Your task to perform on an android device: turn off improve location accuracy Image 0: 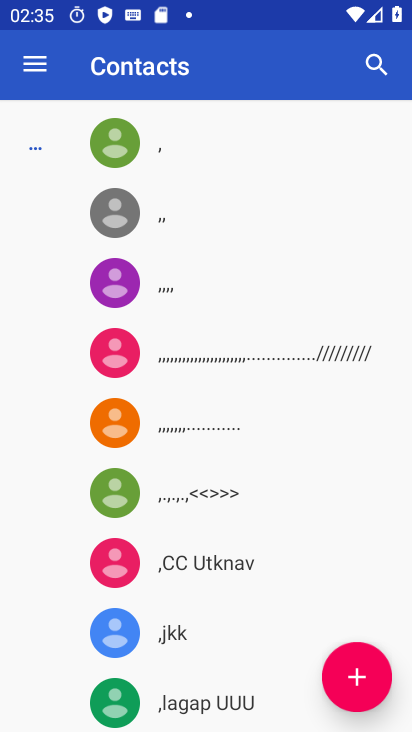
Step 0: press home button
Your task to perform on an android device: turn off improve location accuracy Image 1: 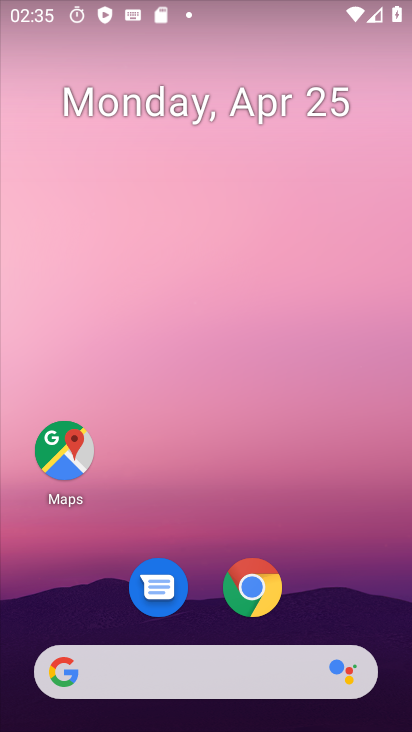
Step 1: drag from (335, 568) to (296, 126)
Your task to perform on an android device: turn off improve location accuracy Image 2: 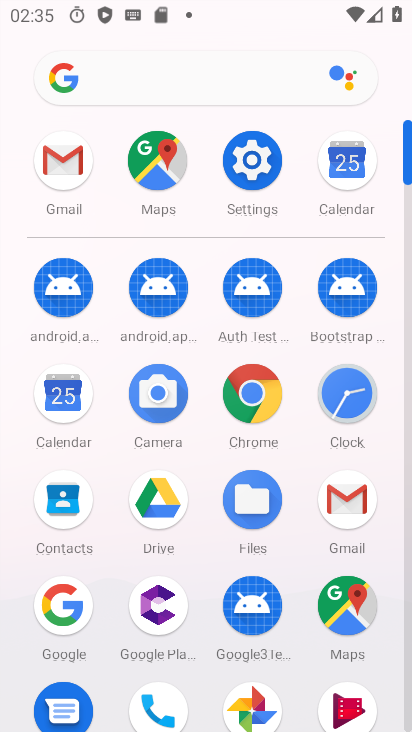
Step 2: click (260, 161)
Your task to perform on an android device: turn off improve location accuracy Image 3: 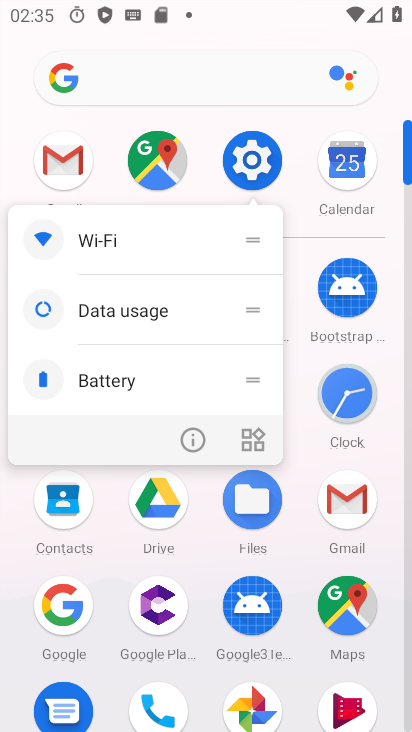
Step 3: click (237, 165)
Your task to perform on an android device: turn off improve location accuracy Image 4: 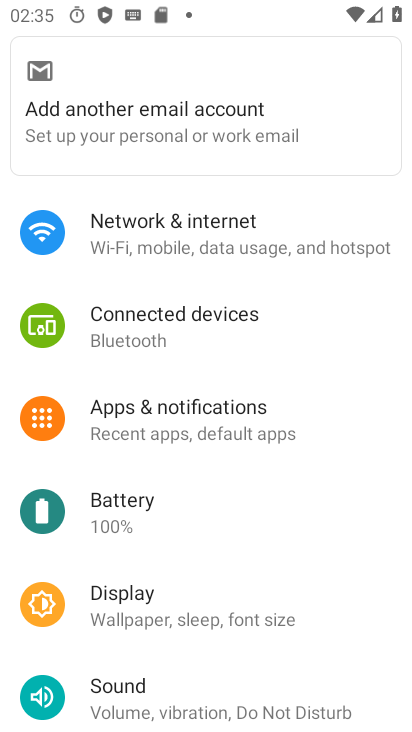
Step 4: drag from (205, 562) to (303, 156)
Your task to perform on an android device: turn off improve location accuracy Image 5: 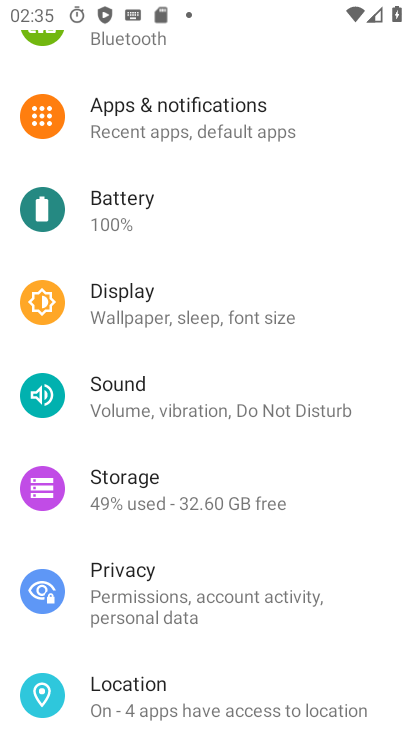
Step 5: drag from (291, 429) to (325, 175)
Your task to perform on an android device: turn off improve location accuracy Image 6: 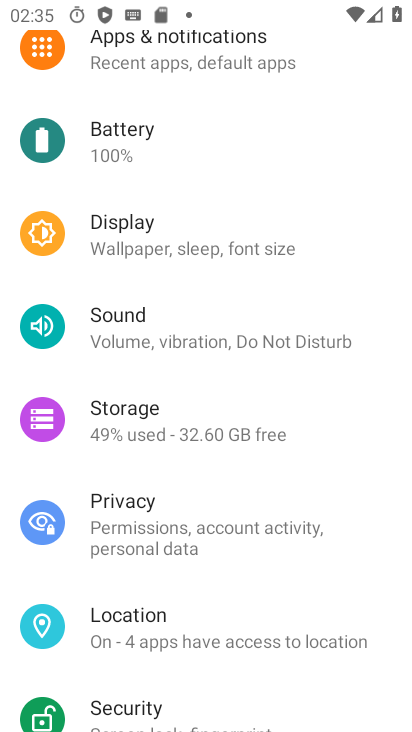
Step 6: drag from (207, 262) to (207, 524)
Your task to perform on an android device: turn off improve location accuracy Image 7: 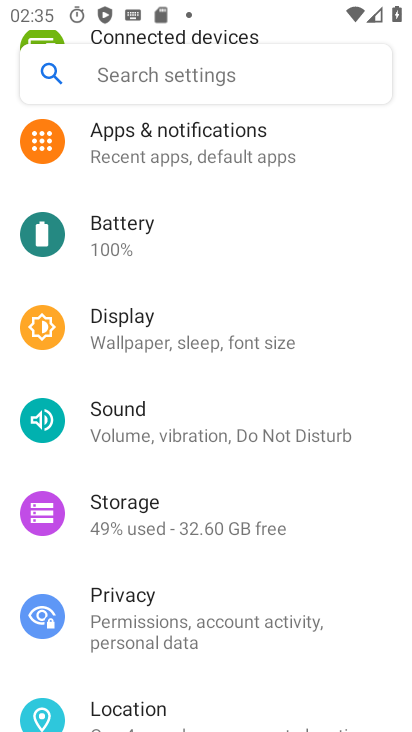
Step 7: drag from (230, 502) to (266, 289)
Your task to perform on an android device: turn off improve location accuracy Image 8: 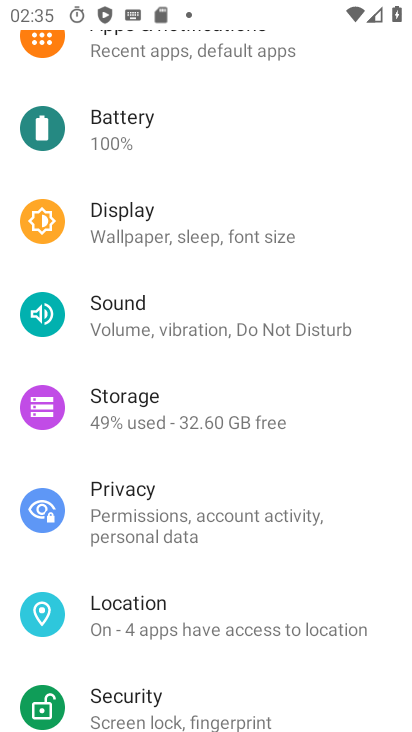
Step 8: drag from (200, 578) to (294, 211)
Your task to perform on an android device: turn off improve location accuracy Image 9: 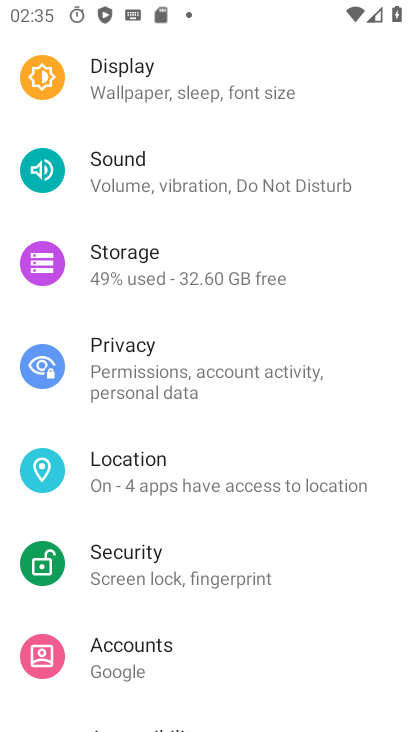
Step 9: click (170, 474)
Your task to perform on an android device: turn off improve location accuracy Image 10: 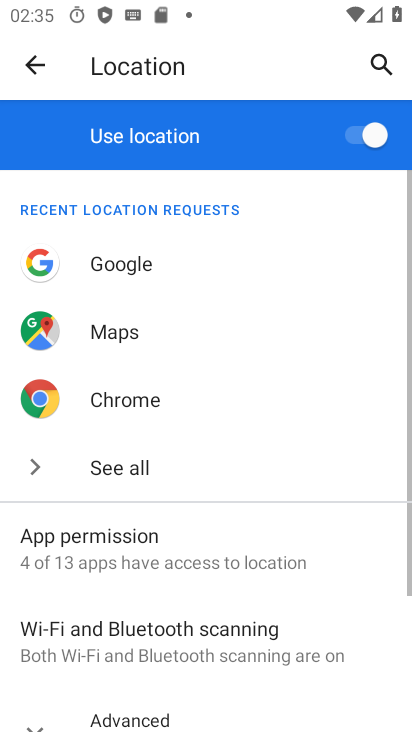
Step 10: drag from (311, 535) to (386, 134)
Your task to perform on an android device: turn off improve location accuracy Image 11: 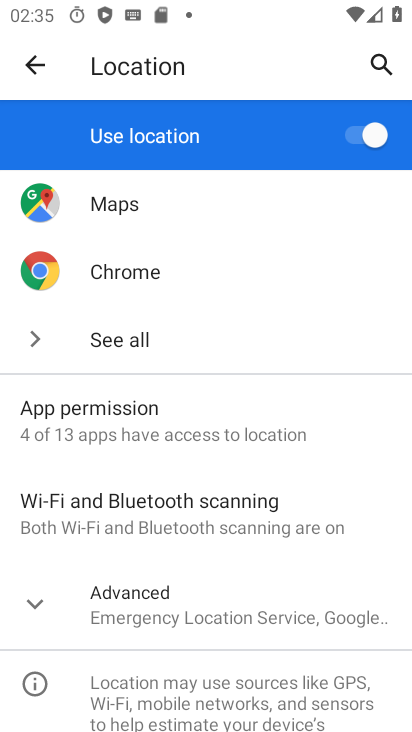
Step 11: click (180, 597)
Your task to perform on an android device: turn off improve location accuracy Image 12: 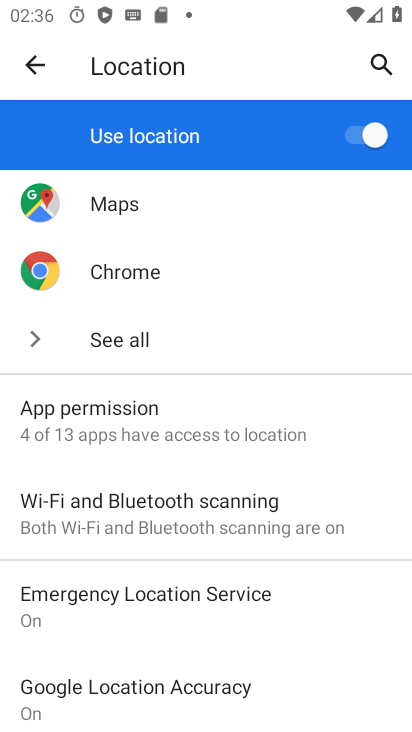
Step 12: drag from (260, 615) to (218, 135)
Your task to perform on an android device: turn off improve location accuracy Image 13: 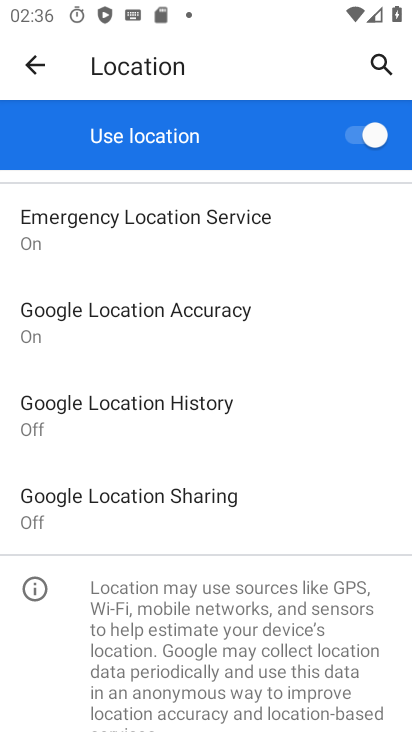
Step 13: click (227, 317)
Your task to perform on an android device: turn off improve location accuracy Image 14: 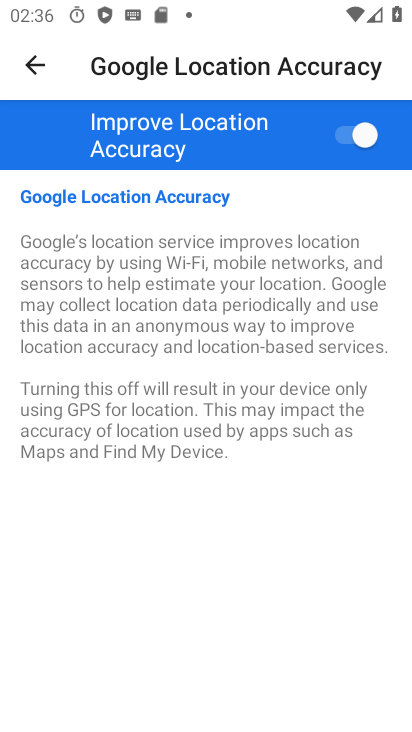
Step 14: click (360, 131)
Your task to perform on an android device: turn off improve location accuracy Image 15: 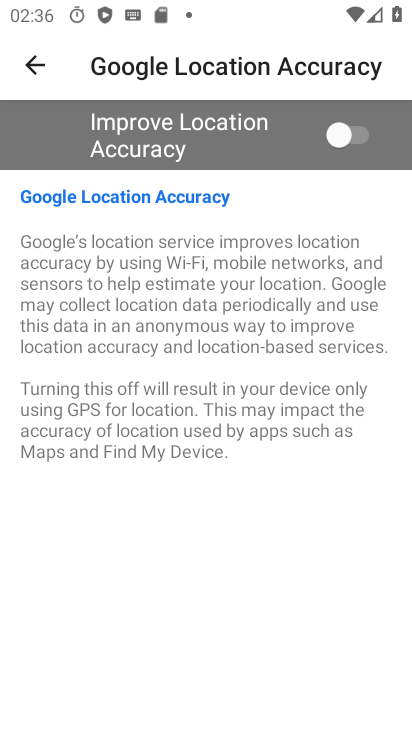
Step 15: task complete